Your task to perform on an android device: turn off notifications settings in the gmail app Image 0: 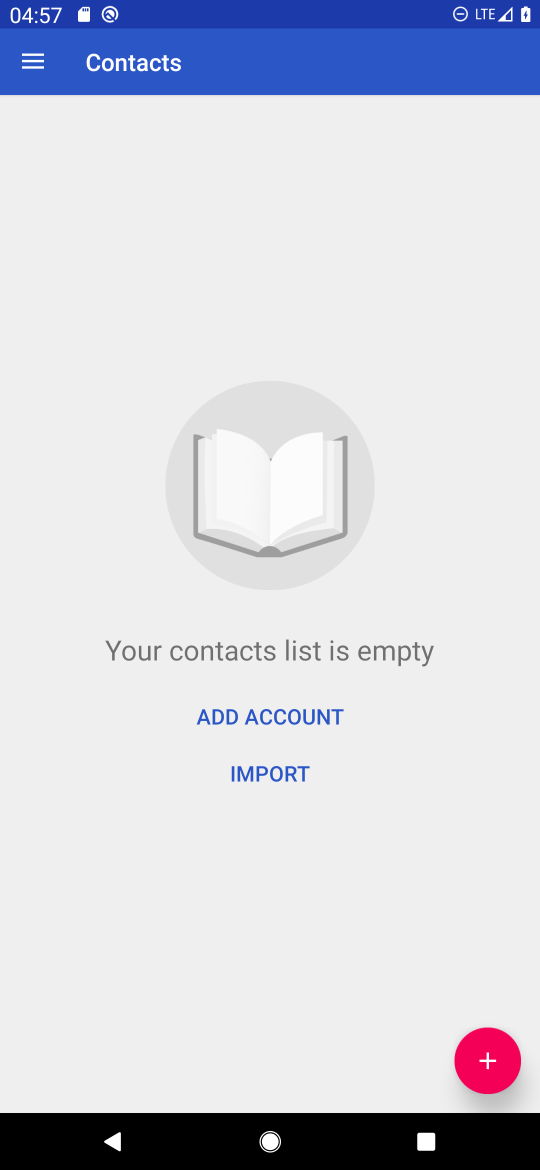
Step 0: press home button
Your task to perform on an android device: turn off notifications settings in the gmail app Image 1: 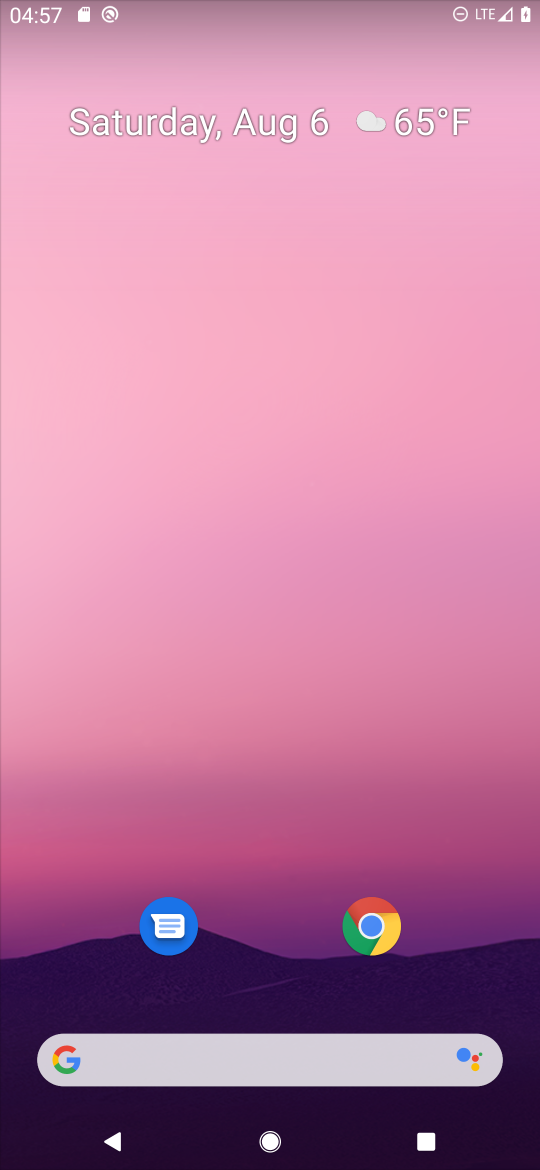
Step 1: drag from (275, 873) to (223, 331)
Your task to perform on an android device: turn off notifications settings in the gmail app Image 2: 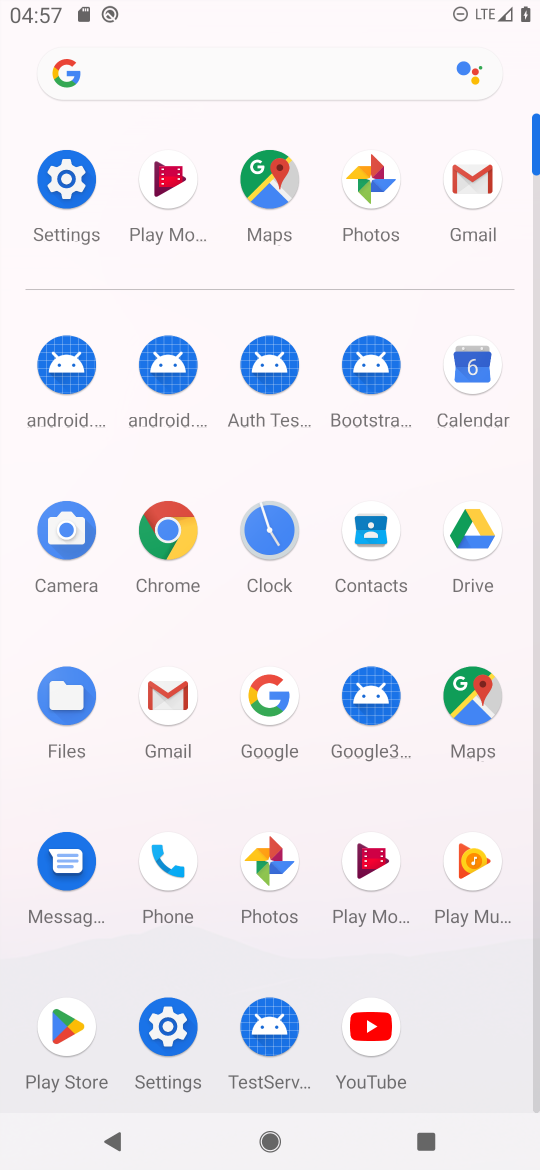
Step 2: click (454, 211)
Your task to perform on an android device: turn off notifications settings in the gmail app Image 3: 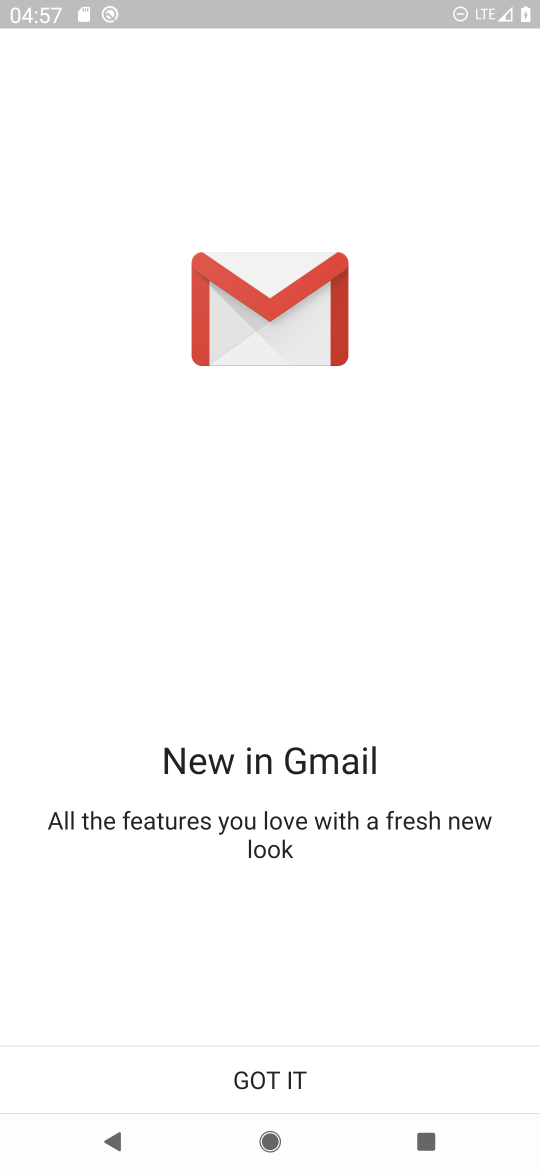
Step 3: click (321, 1060)
Your task to perform on an android device: turn off notifications settings in the gmail app Image 4: 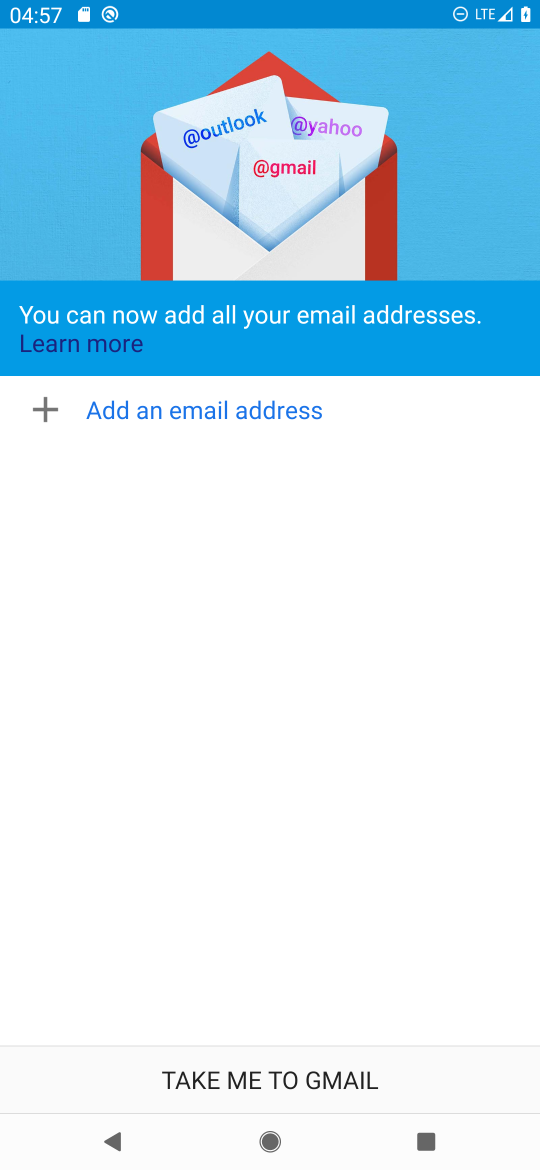
Step 4: click (271, 1044)
Your task to perform on an android device: turn off notifications settings in the gmail app Image 5: 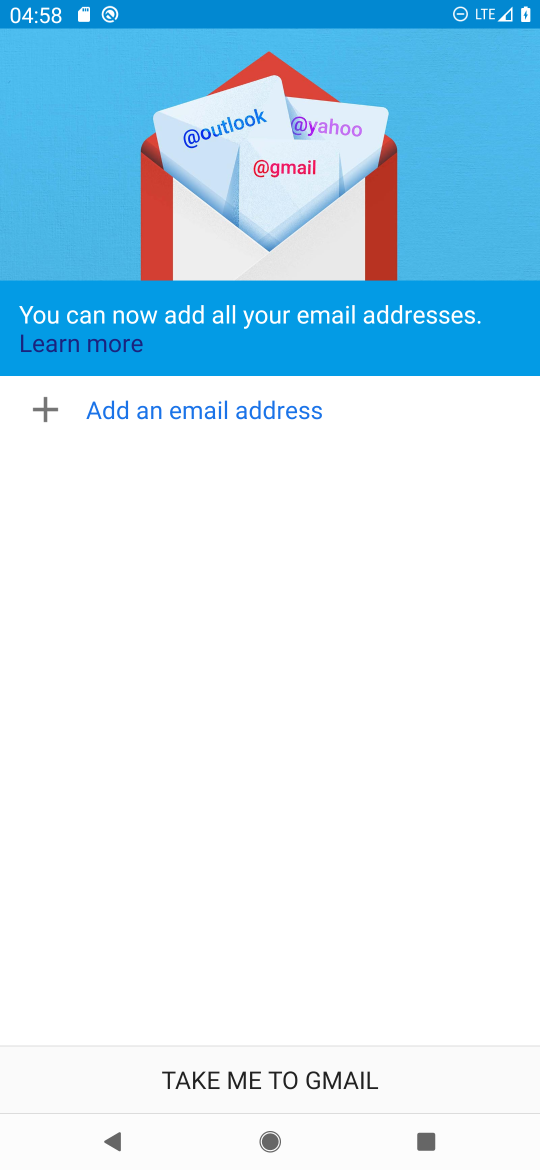
Step 5: task complete